Your task to perform on an android device: allow cookies in the chrome app Image 0: 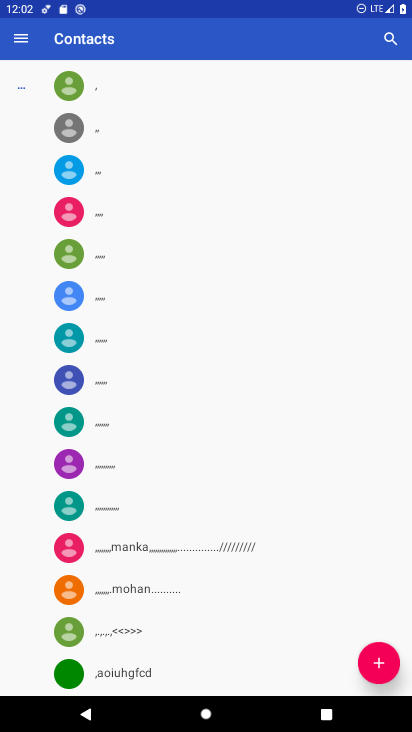
Step 0: press home button
Your task to perform on an android device: allow cookies in the chrome app Image 1: 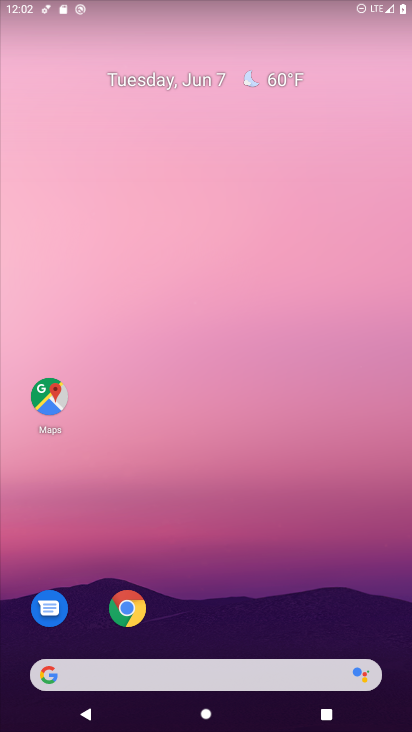
Step 1: click (133, 609)
Your task to perform on an android device: allow cookies in the chrome app Image 2: 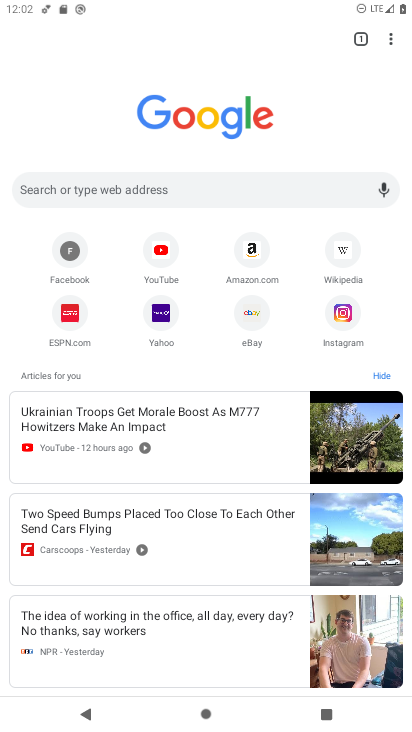
Step 2: click (382, 36)
Your task to perform on an android device: allow cookies in the chrome app Image 3: 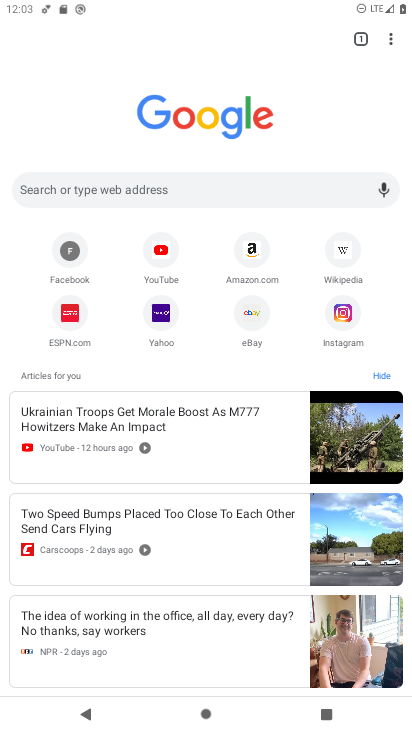
Step 3: click (392, 28)
Your task to perform on an android device: allow cookies in the chrome app Image 4: 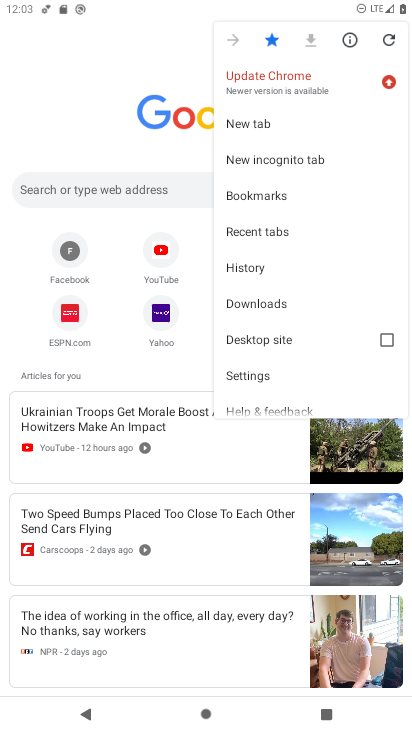
Step 4: click (260, 371)
Your task to perform on an android device: allow cookies in the chrome app Image 5: 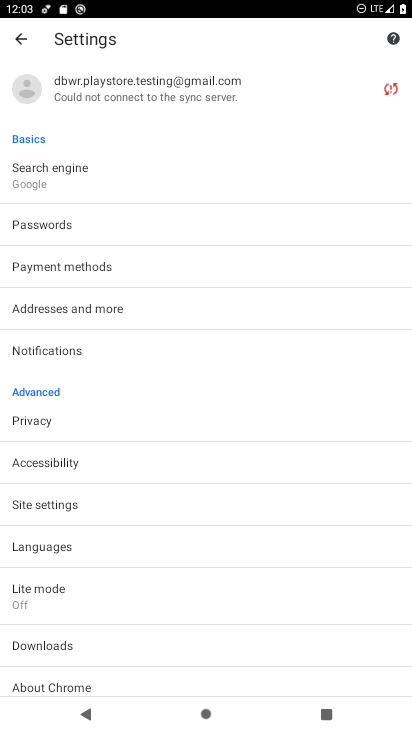
Step 5: click (78, 499)
Your task to perform on an android device: allow cookies in the chrome app Image 6: 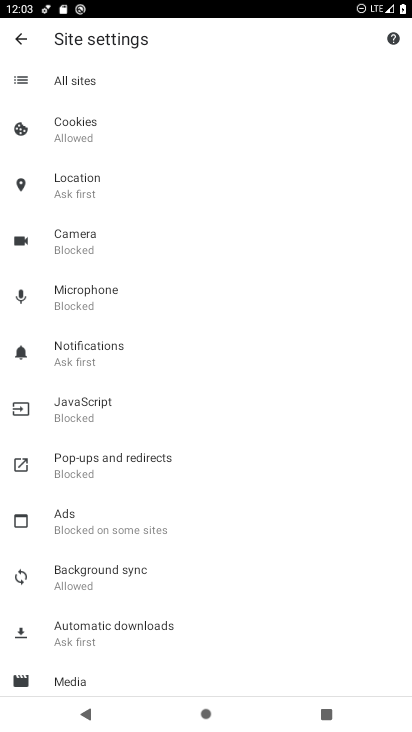
Step 6: click (102, 135)
Your task to perform on an android device: allow cookies in the chrome app Image 7: 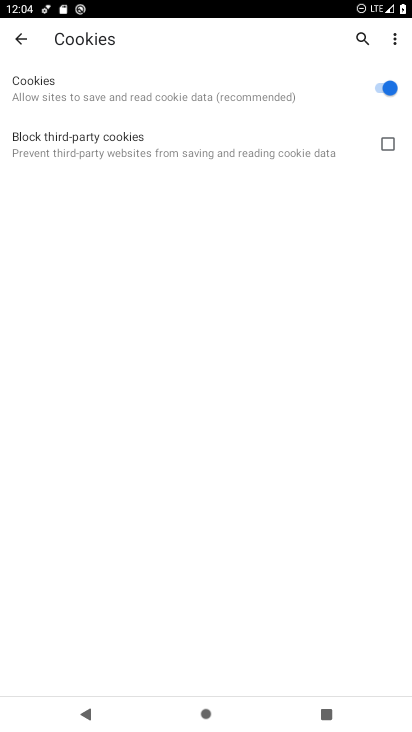
Step 7: task complete